Your task to perform on an android device: change your default location settings in chrome Image 0: 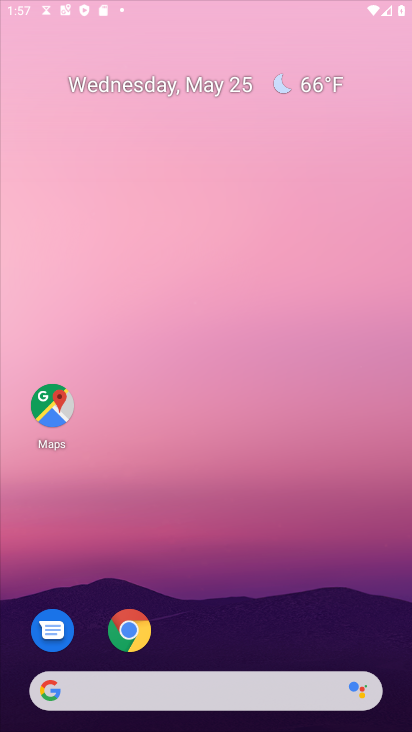
Step 0: press home button
Your task to perform on an android device: change your default location settings in chrome Image 1: 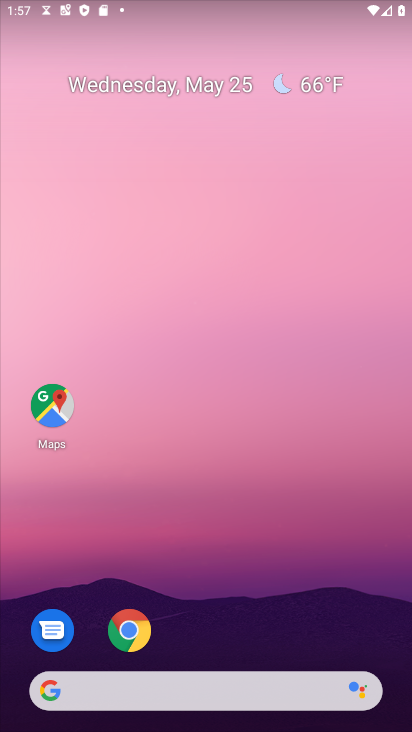
Step 1: click (126, 624)
Your task to perform on an android device: change your default location settings in chrome Image 2: 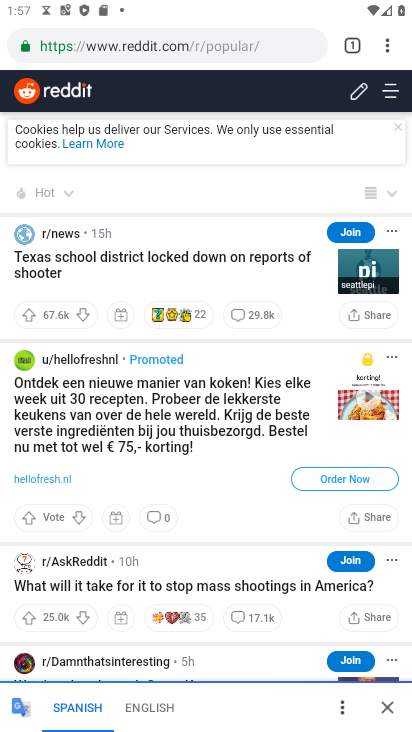
Step 2: click (387, 40)
Your task to perform on an android device: change your default location settings in chrome Image 3: 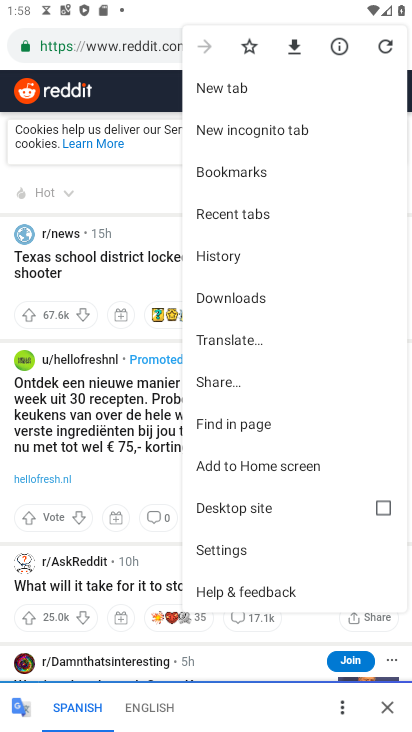
Step 3: click (254, 546)
Your task to perform on an android device: change your default location settings in chrome Image 4: 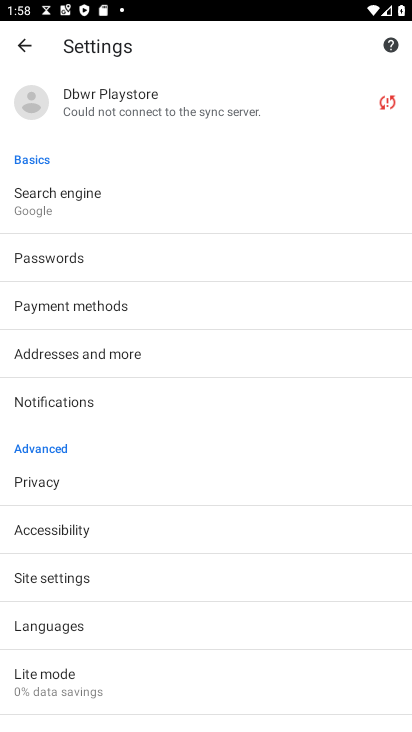
Step 4: drag from (160, 654) to (230, 205)
Your task to perform on an android device: change your default location settings in chrome Image 5: 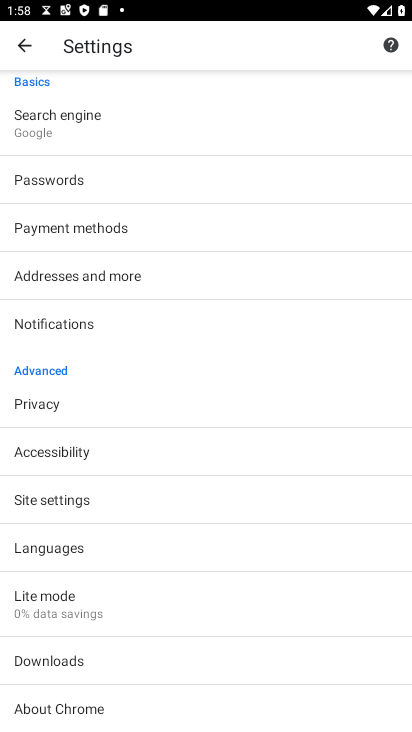
Step 5: click (108, 498)
Your task to perform on an android device: change your default location settings in chrome Image 6: 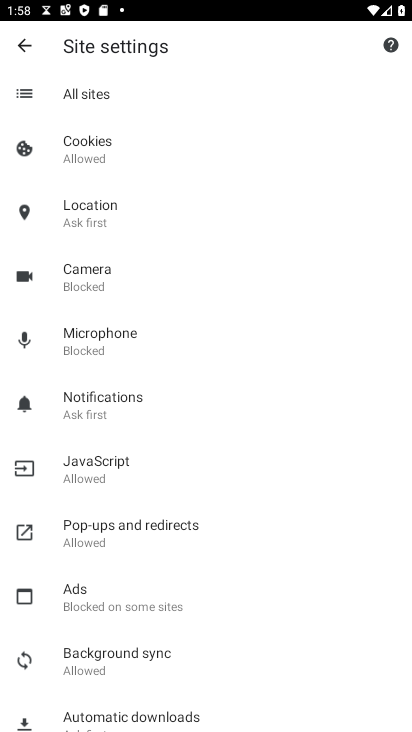
Step 6: click (137, 207)
Your task to perform on an android device: change your default location settings in chrome Image 7: 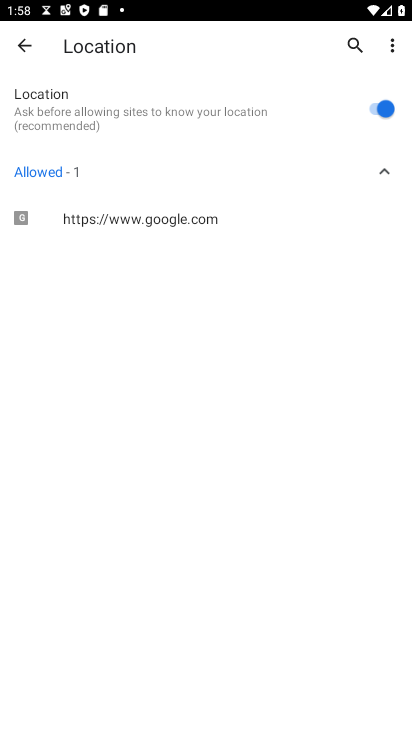
Step 7: click (379, 107)
Your task to perform on an android device: change your default location settings in chrome Image 8: 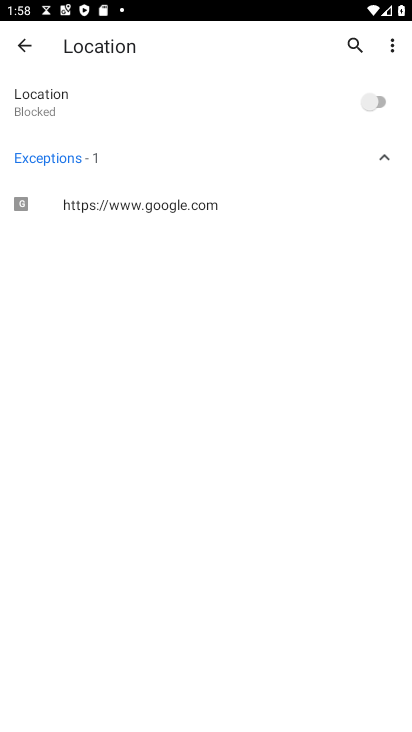
Step 8: task complete